Your task to perform on an android device: add a contact Image 0: 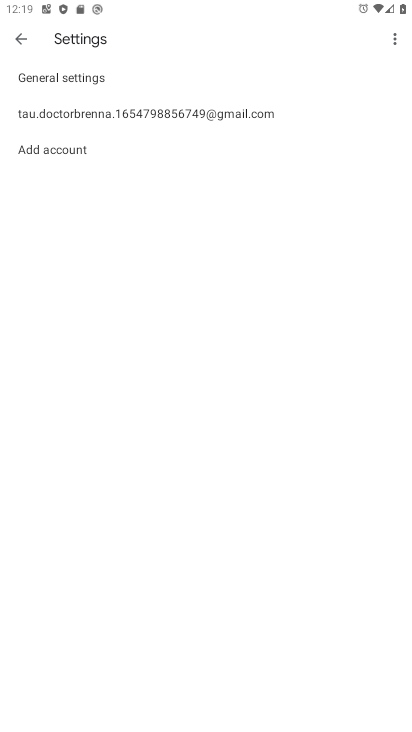
Step 0: press home button
Your task to perform on an android device: add a contact Image 1: 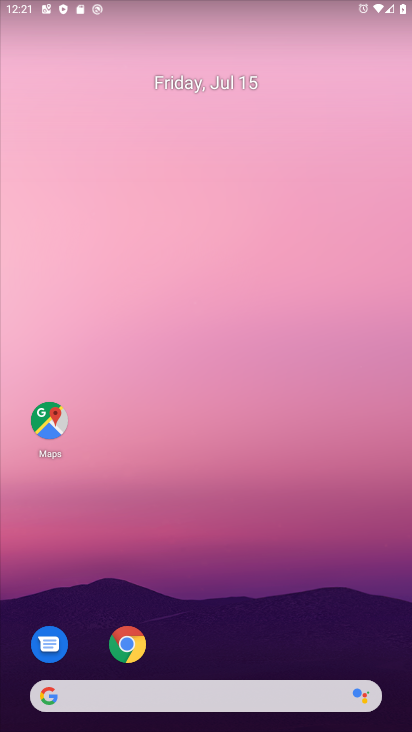
Step 1: drag from (272, 636) to (173, 14)
Your task to perform on an android device: add a contact Image 2: 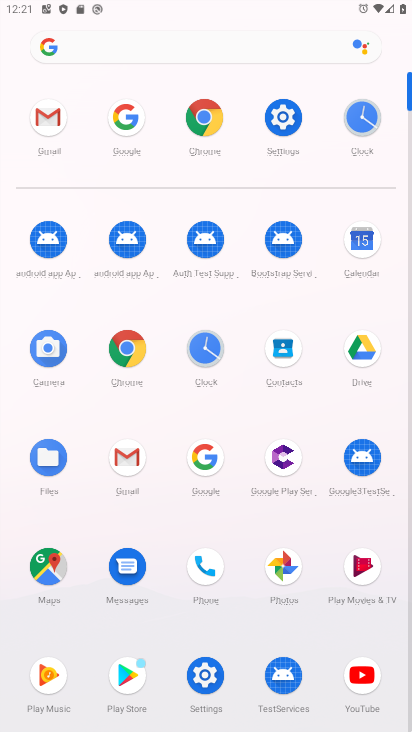
Step 2: click (278, 362)
Your task to perform on an android device: add a contact Image 3: 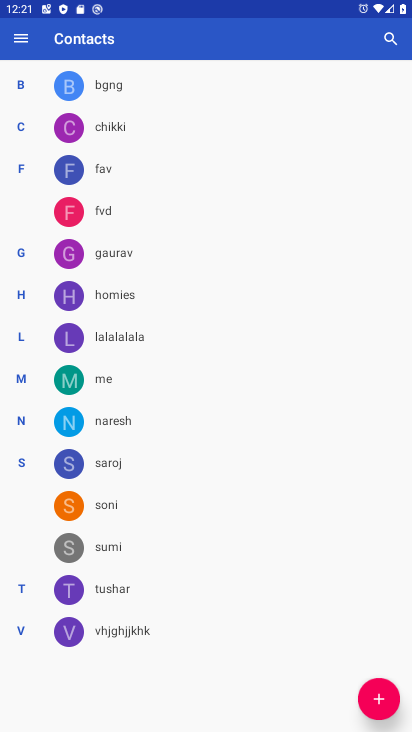
Step 3: click (374, 693)
Your task to perform on an android device: add a contact Image 4: 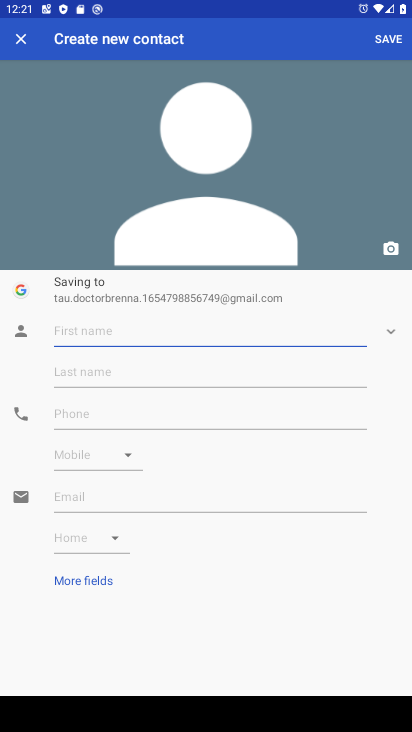
Step 4: type "suman"
Your task to perform on an android device: add a contact Image 5: 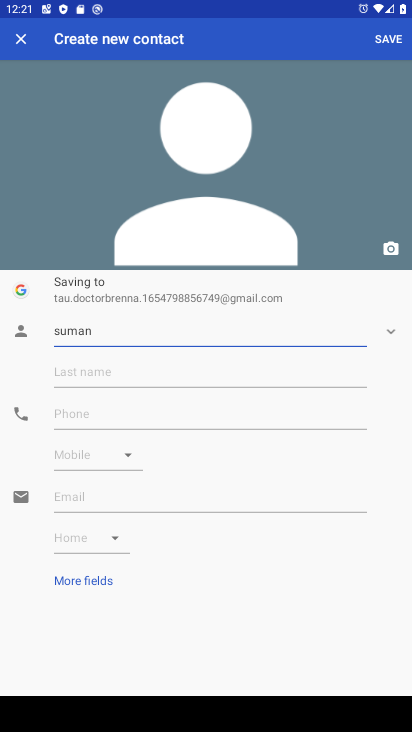
Step 5: click (390, 35)
Your task to perform on an android device: add a contact Image 6: 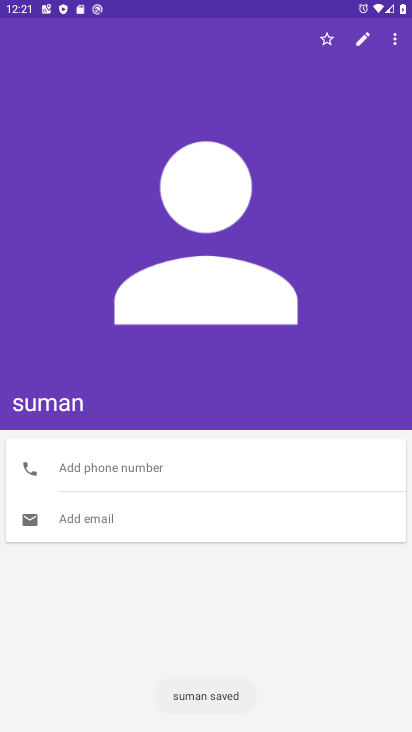
Step 6: task complete